Your task to perform on an android device: check storage Image 0: 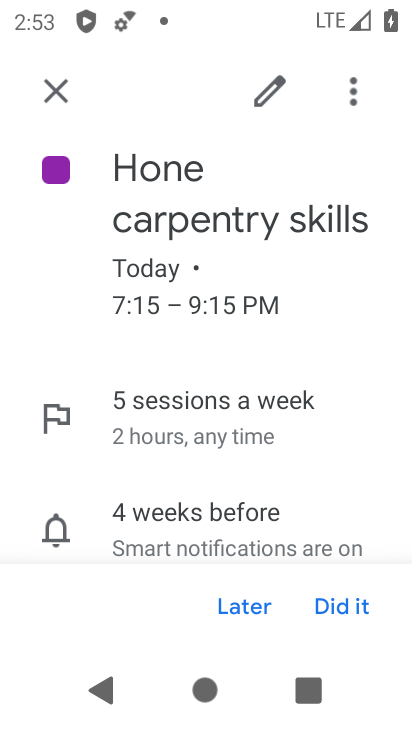
Step 0: press home button
Your task to perform on an android device: check storage Image 1: 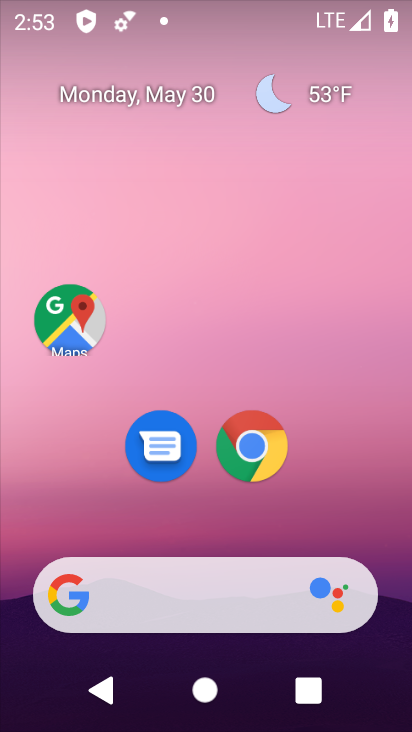
Step 1: drag from (334, 486) to (230, 117)
Your task to perform on an android device: check storage Image 2: 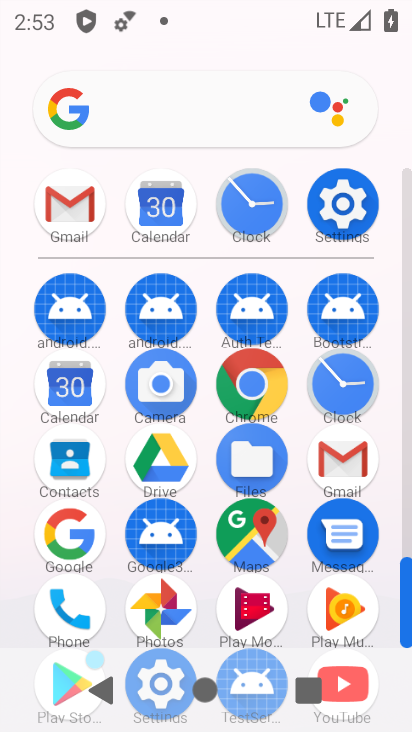
Step 2: click (343, 203)
Your task to perform on an android device: check storage Image 3: 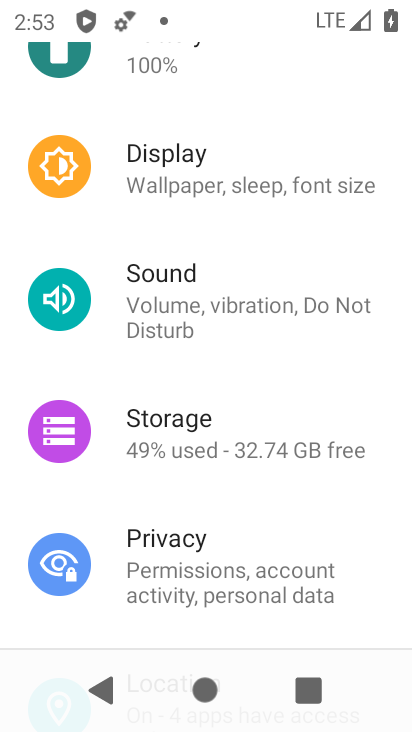
Step 3: click (207, 454)
Your task to perform on an android device: check storage Image 4: 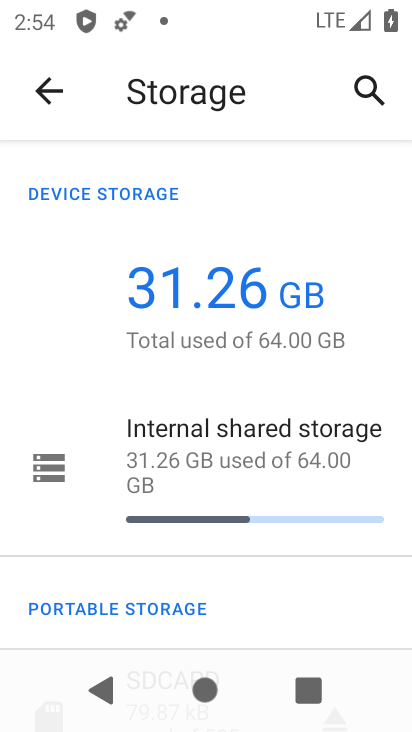
Step 4: task complete